Your task to perform on an android device: Go to ESPN.com Image 0: 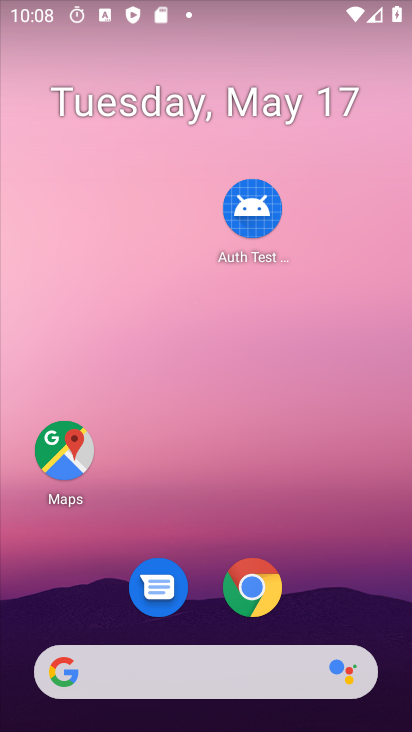
Step 0: drag from (223, 511) to (226, 58)
Your task to perform on an android device: Go to ESPN.com Image 1: 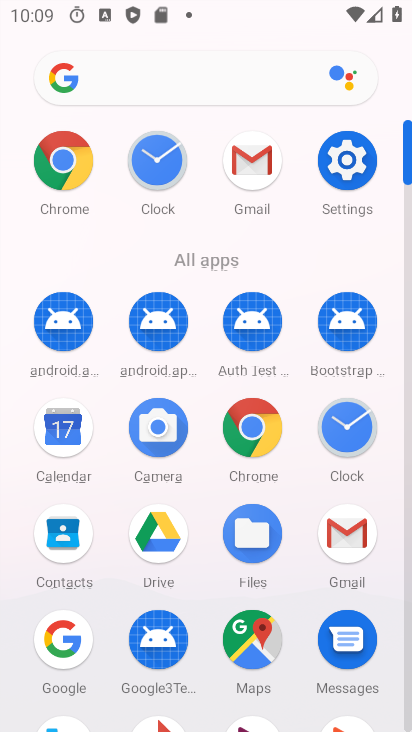
Step 1: click (261, 432)
Your task to perform on an android device: Go to ESPN.com Image 2: 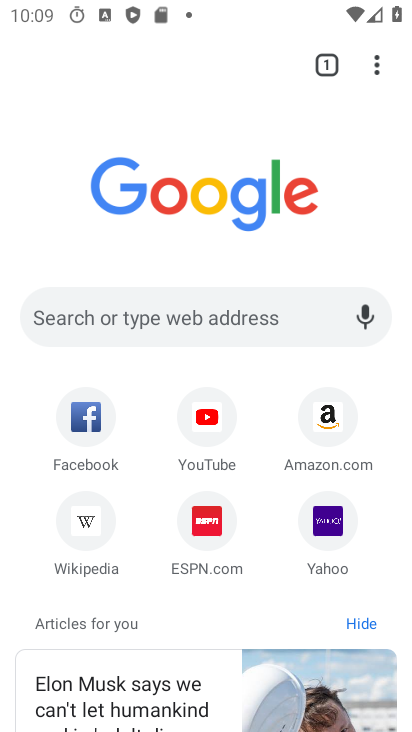
Step 2: click (209, 552)
Your task to perform on an android device: Go to ESPN.com Image 3: 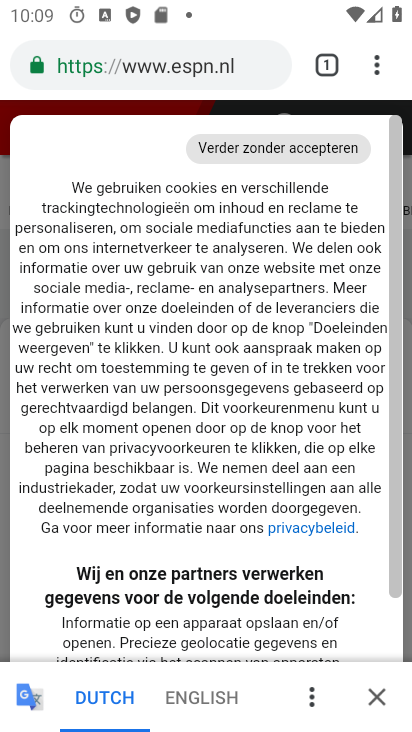
Step 3: task complete